Your task to perform on an android device: delete a single message in the gmail app Image 0: 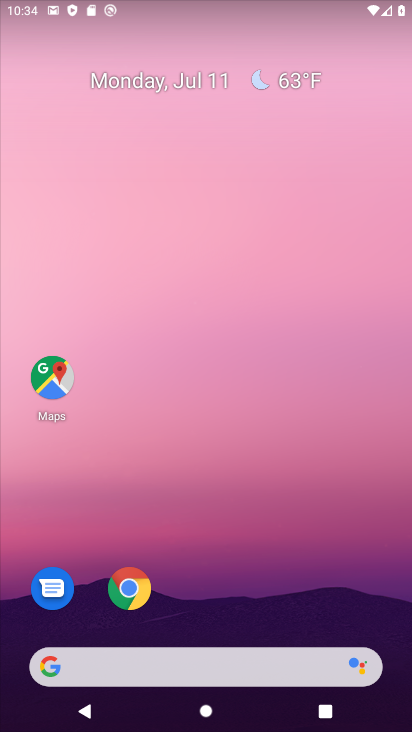
Step 0: drag from (231, 692) to (190, 124)
Your task to perform on an android device: delete a single message in the gmail app Image 1: 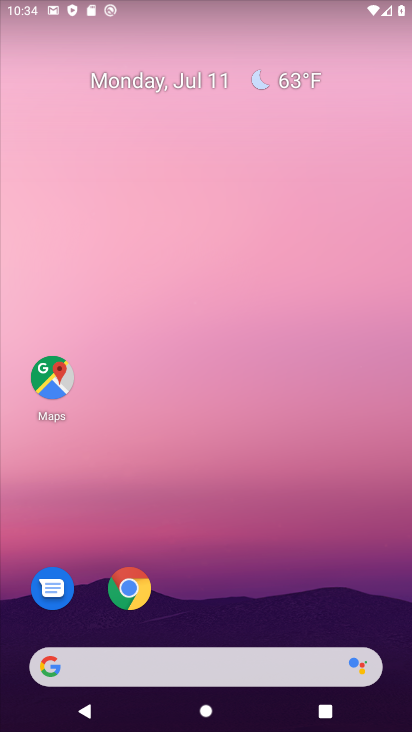
Step 1: drag from (264, 717) to (235, 91)
Your task to perform on an android device: delete a single message in the gmail app Image 2: 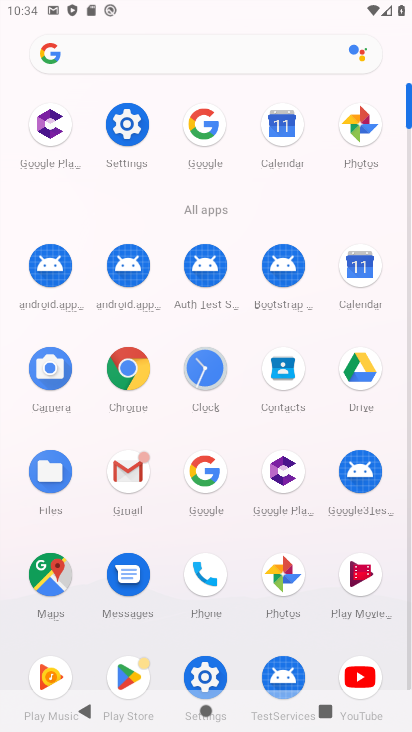
Step 2: click (128, 466)
Your task to perform on an android device: delete a single message in the gmail app Image 3: 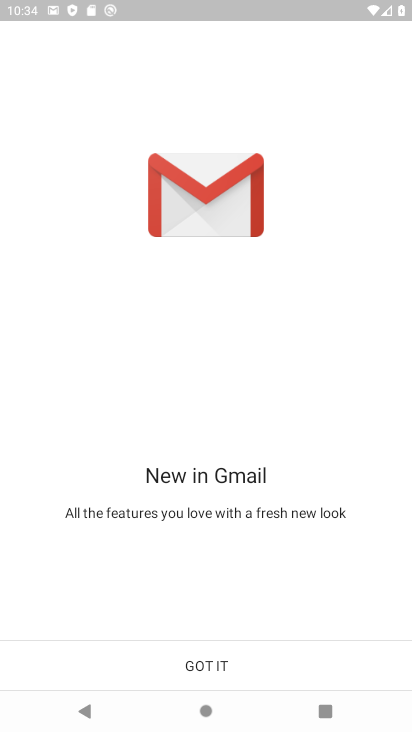
Step 3: click (199, 666)
Your task to perform on an android device: delete a single message in the gmail app Image 4: 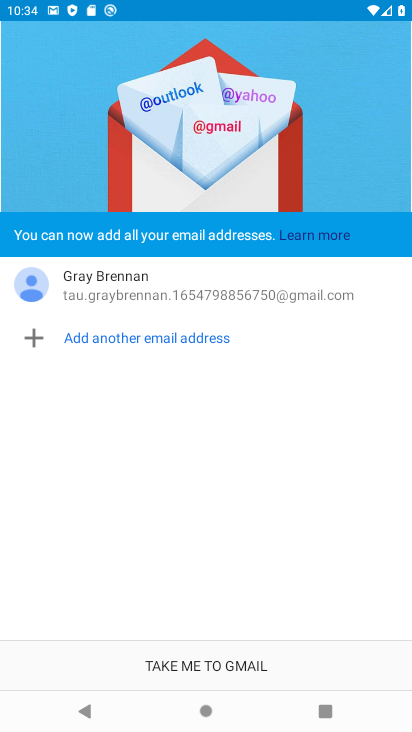
Step 4: click (199, 665)
Your task to perform on an android device: delete a single message in the gmail app Image 5: 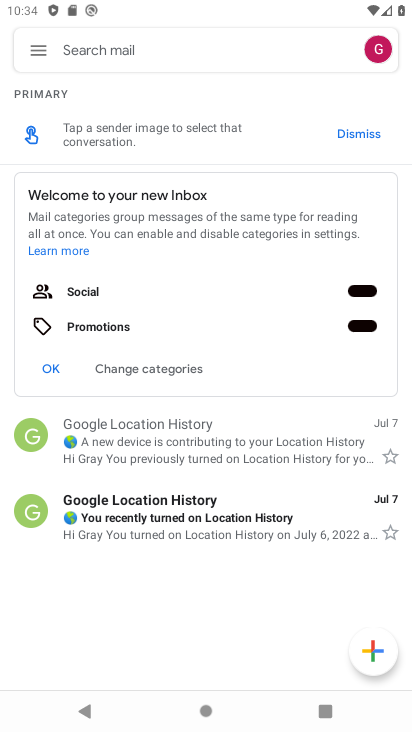
Step 5: click (206, 459)
Your task to perform on an android device: delete a single message in the gmail app Image 6: 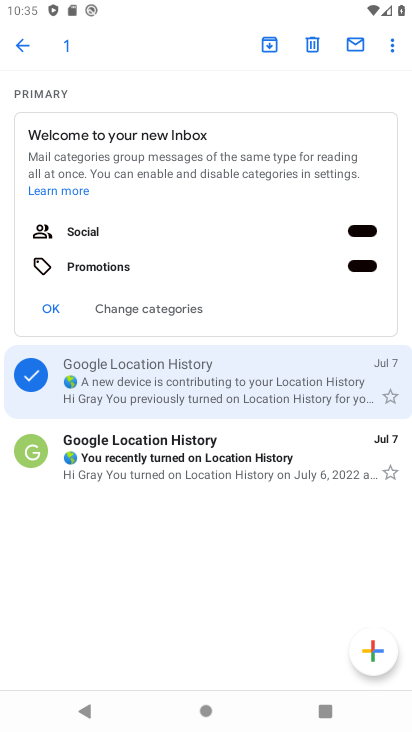
Step 6: click (316, 37)
Your task to perform on an android device: delete a single message in the gmail app Image 7: 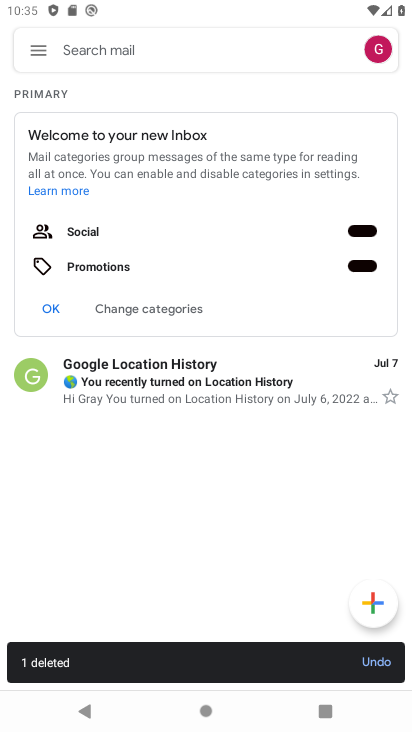
Step 7: task complete